Your task to perform on an android device: set an alarm Image 0: 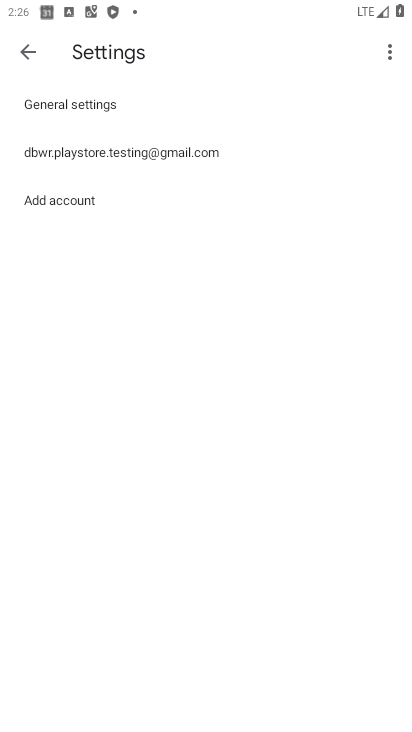
Step 0: press home button
Your task to perform on an android device: set an alarm Image 1: 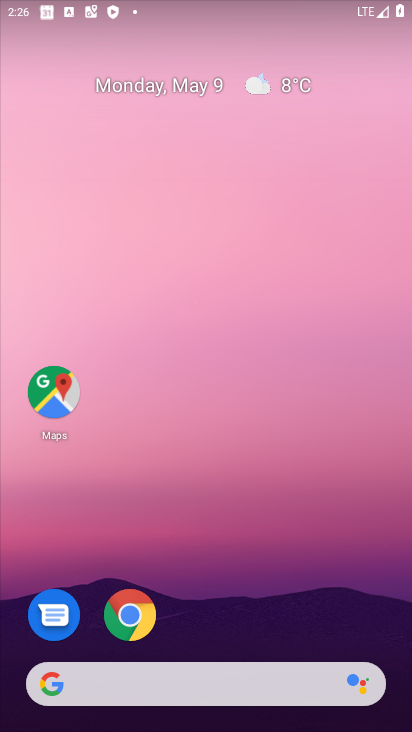
Step 1: drag from (362, 637) to (312, 50)
Your task to perform on an android device: set an alarm Image 2: 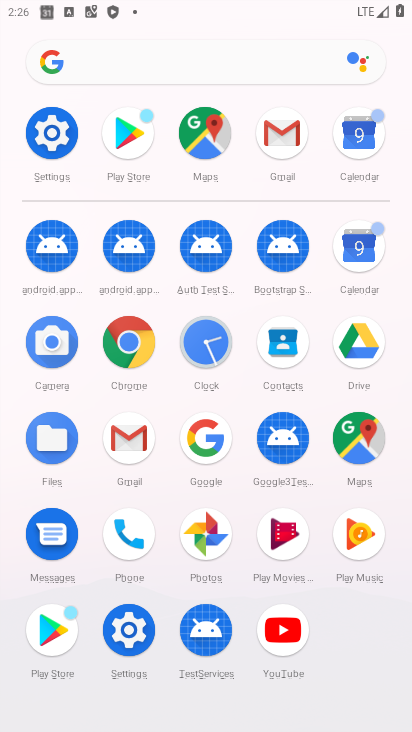
Step 2: click (203, 341)
Your task to perform on an android device: set an alarm Image 3: 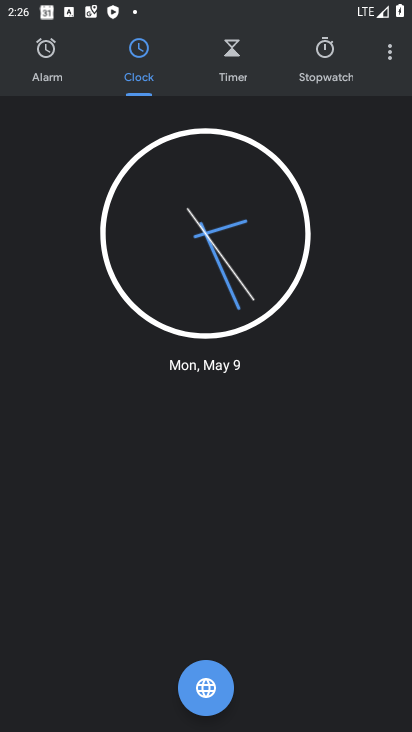
Step 3: click (42, 52)
Your task to perform on an android device: set an alarm Image 4: 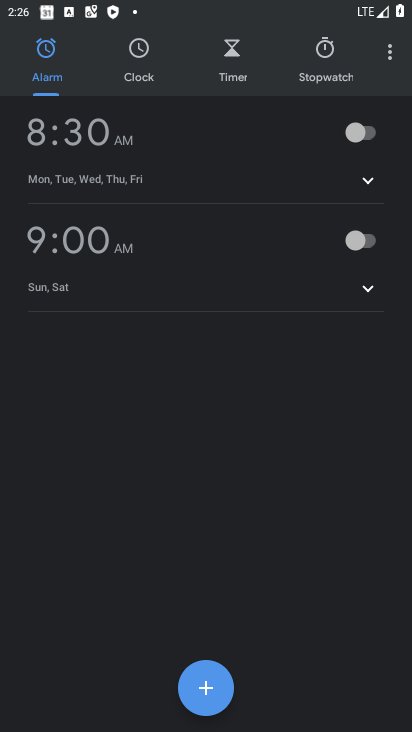
Step 4: click (70, 147)
Your task to perform on an android device: set an alarm Image 5: 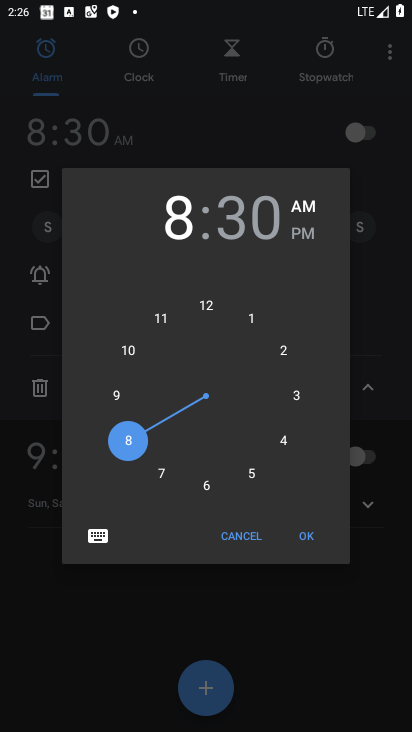
Step 5: click (251, 475)
Your task to perform on an android device: set an alarm Image 6: 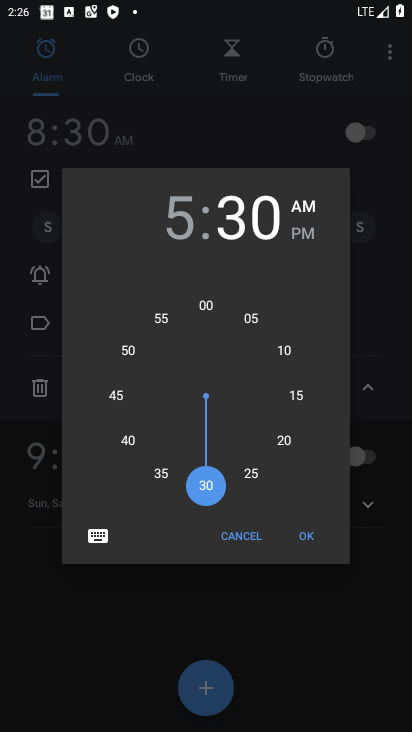
Step 6: click (289, 392)
Your task to perform on an android device: set an alarm Image 7: 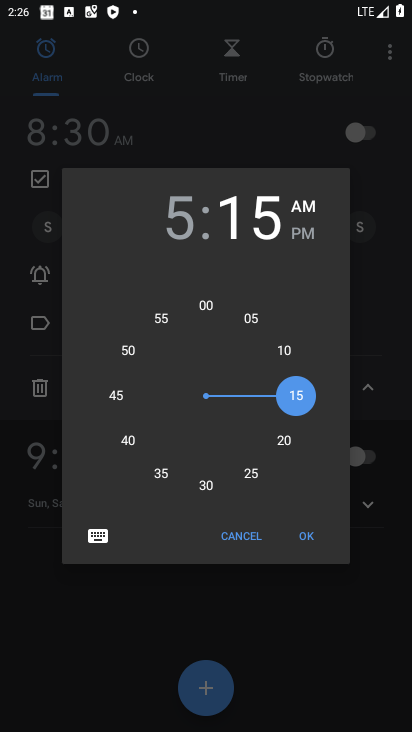
Step 7: click (310, 538)
Your task to perform on an android device: set an alarm Image 8: 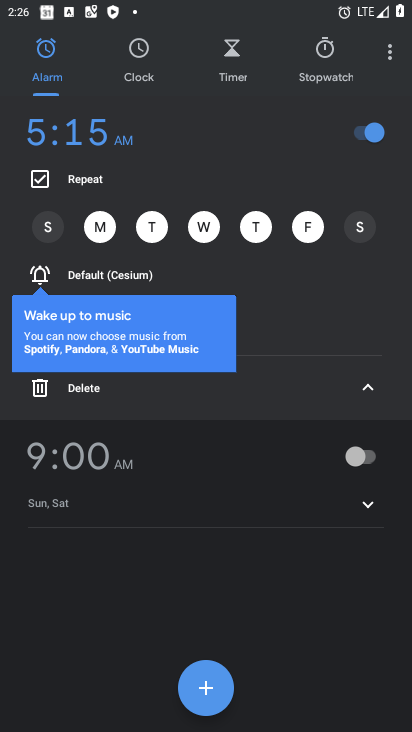
Step 8: click (358, 225)
Your task to perform on an android device: set an alarm Image 9: 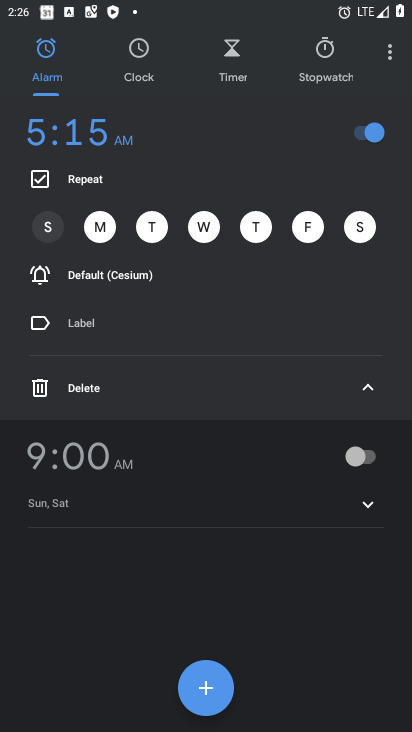
Step 9: click (365, 392)
Your task to perform on an android device: set an alarm Image 10: 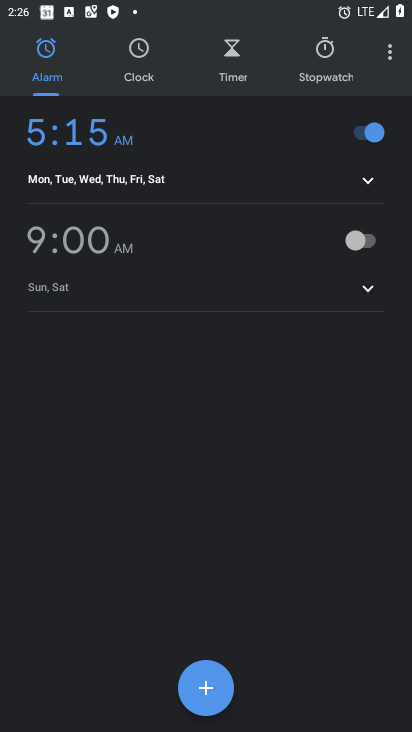
Step 10: task complete